Your task to perform on an android device: Open my contact list Image 0: 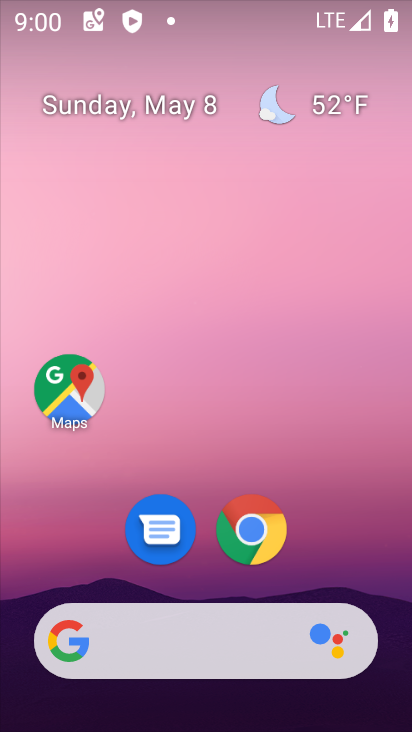
Step 0: drag from (358, 553) to (369, 50)
Your task to perform on an android device: Open my contact list Image 1: 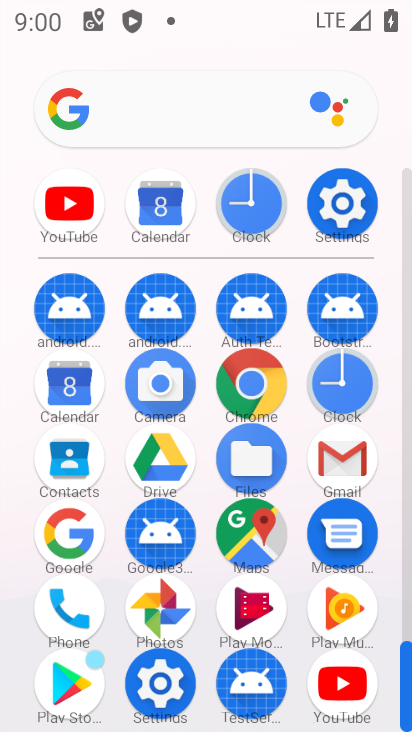
Step 1: drag from (205, 650) to (212, 362)
Your task to perform on an android device: Open my contact list Image 2: 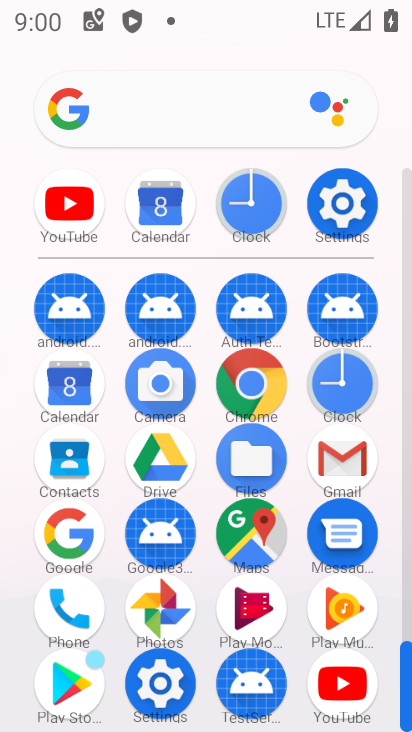
Step 2: click (72, 473)
Your task to perform on an android device: Open my contact list Image 3: 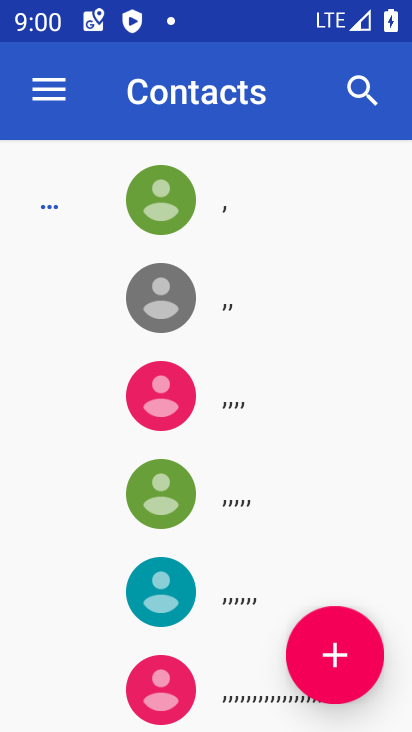
Step 3: task complete